Your task to perform on an android device: toggle notifications settings in the gmail app Image 0: 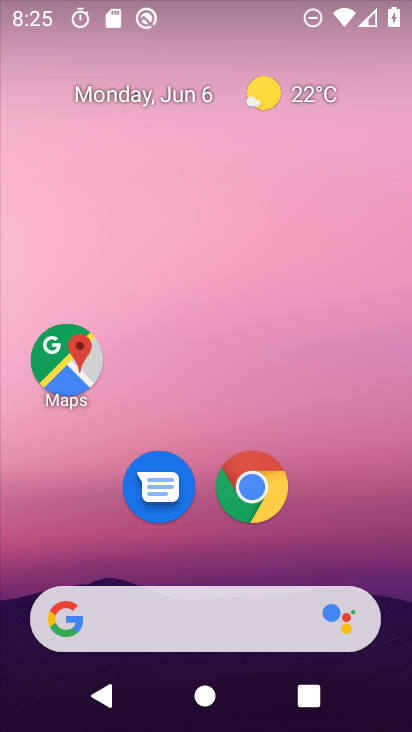
Step 0: drag from (397, 640) to (300, 95)
Your task to perform on an android device: toggle notifications settings in the gmail app Image 1: 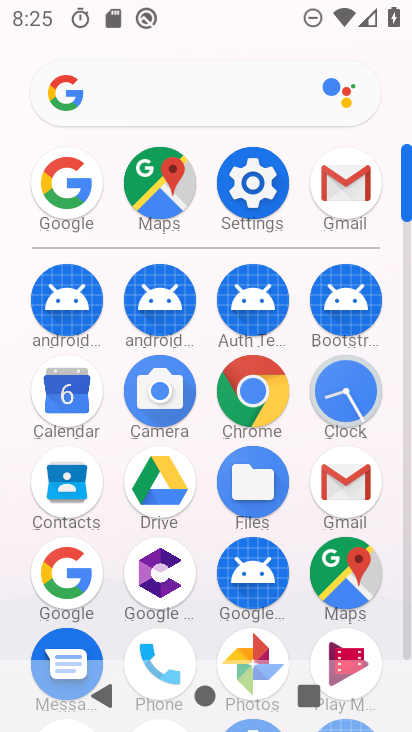
Step 1: click (351, 492)
Your task to perform on an android device: toggle notifications settings in the gmail app Image 2: 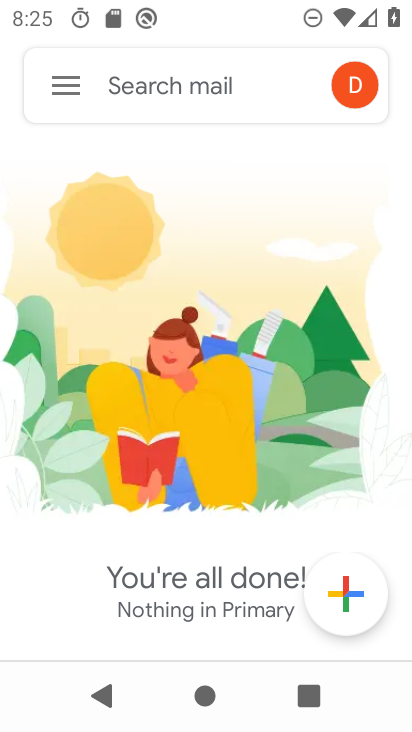
Step 2: click (40, 91)
Your task to perform on an android device: toggle notifications settings in the gmail app Image 3: 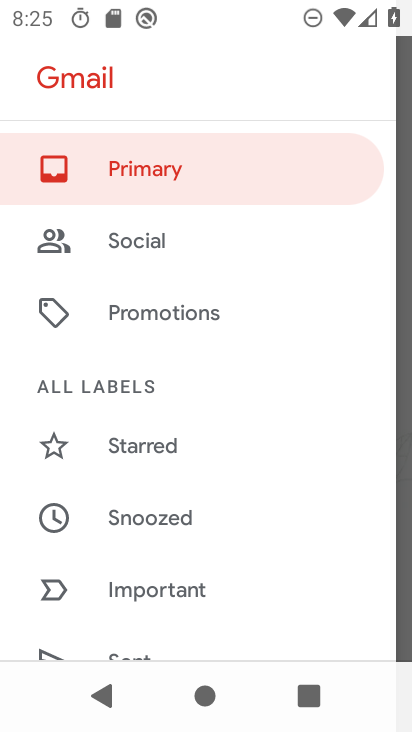
Step 3: drag from (222, 592) to (245, 158)
Your task to perform on an android device: toggle notifications settings in the gmail app Image 4: 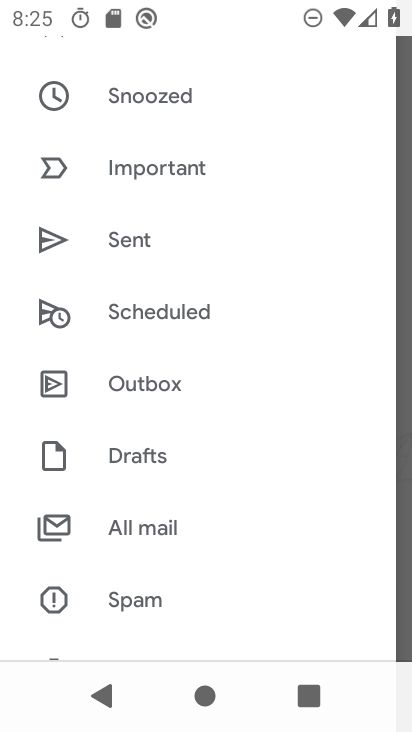
Step 4: drag from (191, 601) to (222, 87)
Your task to perform on an android device: toggle notifications settings in the gmail app Image 5: 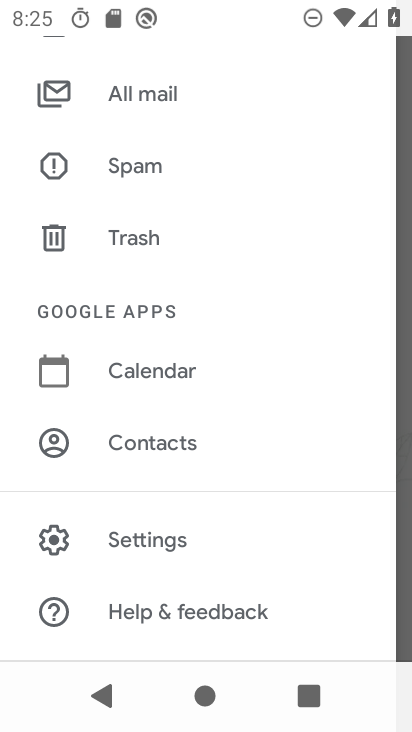
Step 5: click (179, 547)
Your task to perform on an android device: toggle notifications settings in the gmail app Image 6: 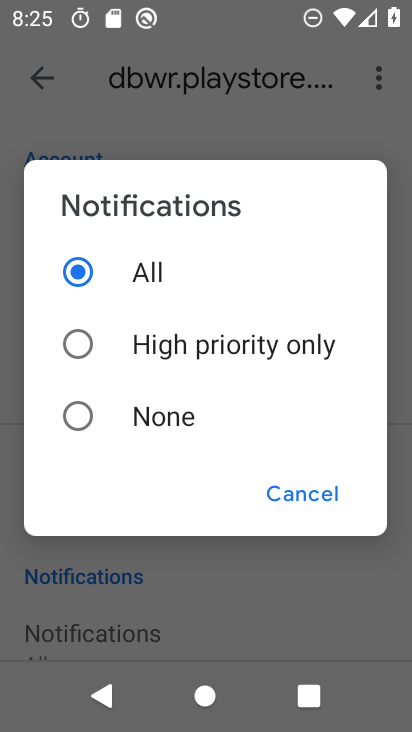
Step 6: click (81, 416)
Your task to perform on an android device: toggle notifications settings in the gmail app Image 7: 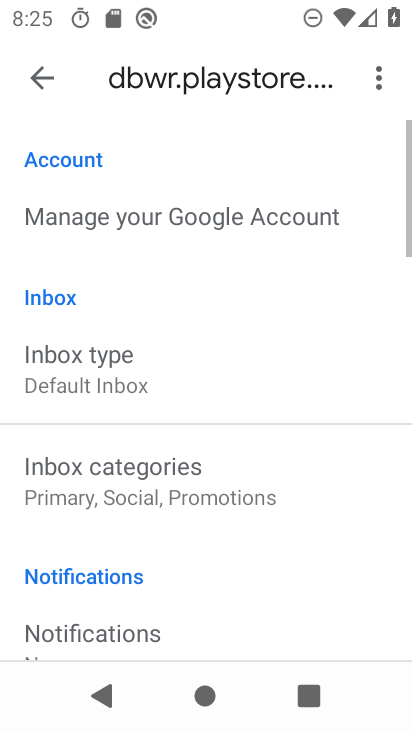
Step 7: task complete